Your task to perform on an android device: visit the assistant section in the google photos Image 0: 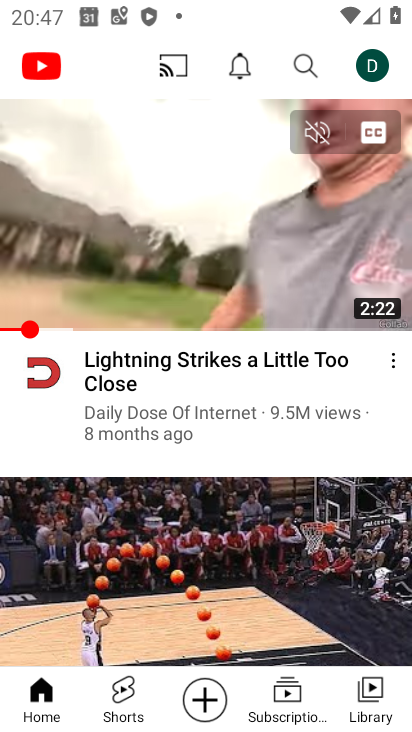
Step 0: press home button
Your task to perform on an android device: visit the assistant section in the google photos Image 1: 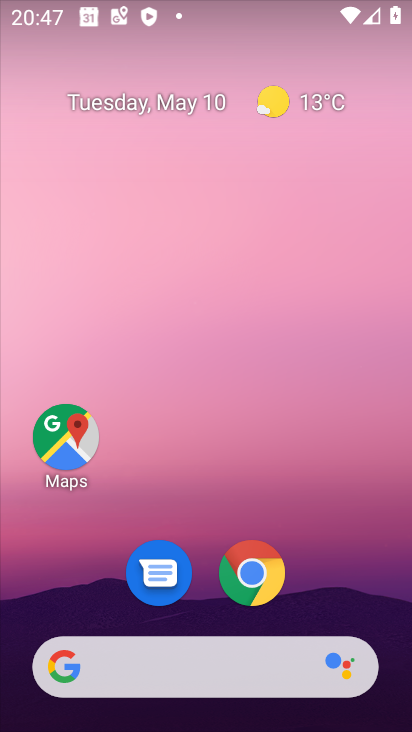
Step 1: drag from (355, 622) to (348, 0)
Your task to perform on an android device: visit the assistant section in the google photos Image 2: 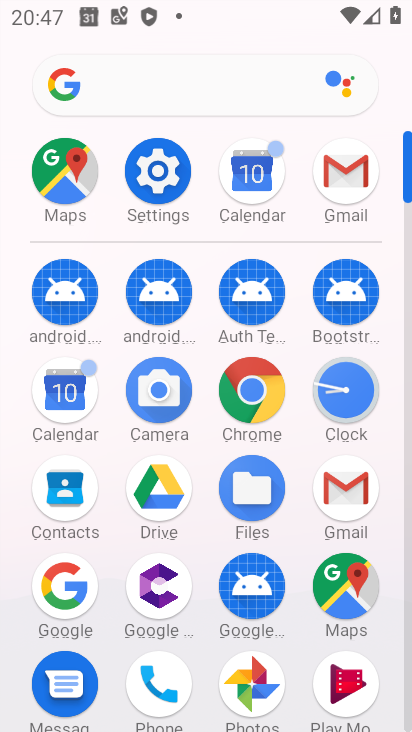
Step 2: click (244, 676)
Your task to perform on an android device: visit the assistant section in the google photos Image 3: 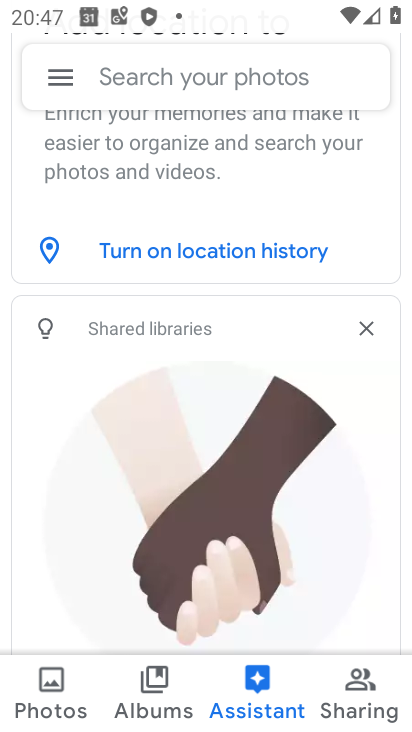
Step 3: task complete